Your task to perform on an android device: turn pop-ups on in chrome Image 0: 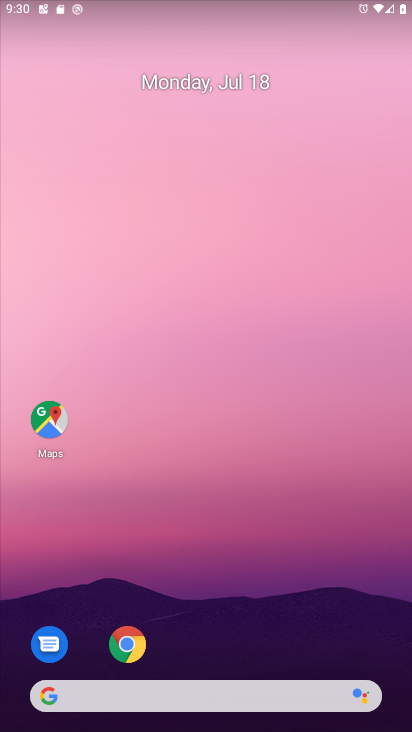
Step 0: click (133, 638)
Your task to perform on an android device: turn pop-ups on in chrome Image 1: 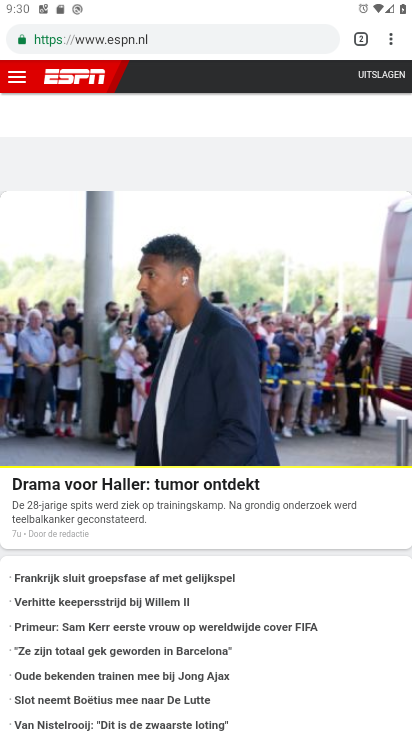
Step 1: click (393, 46)
Your task to perform on an android device: turn pop-ups on in chrome Image 2: 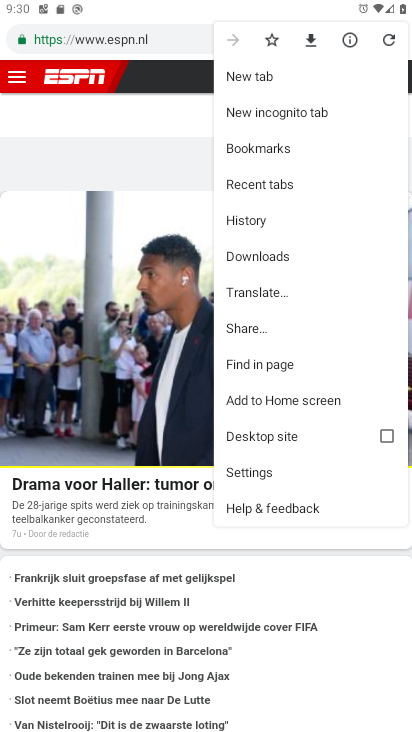
Step 2: click (250, 468)
Your task to perform on an android device: turn pop-ups on in chrome Image 3: 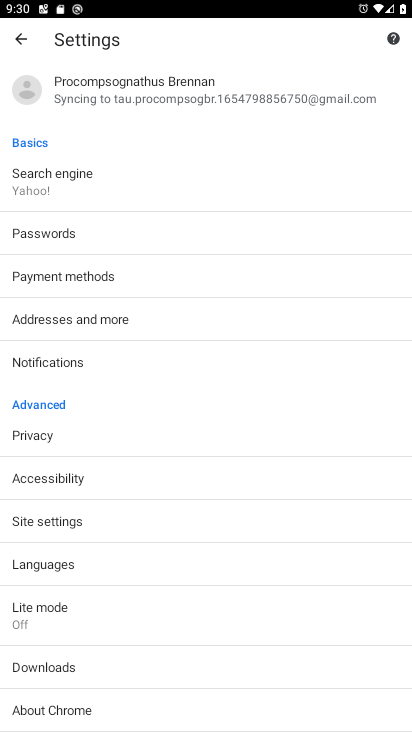
Step 3: click (209, 523)
Your task to perform on an android device: turn pop-ups on in chrome Image 4: 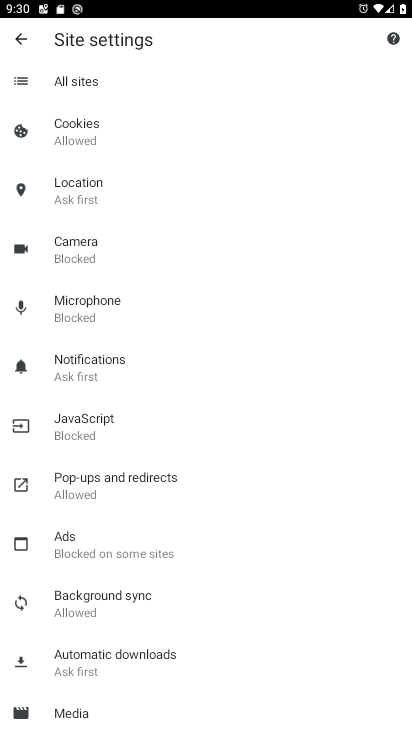
Step 4: click (160, 475)
Your task to perform on an android device: turn pop-ups on in chrome Image 5: 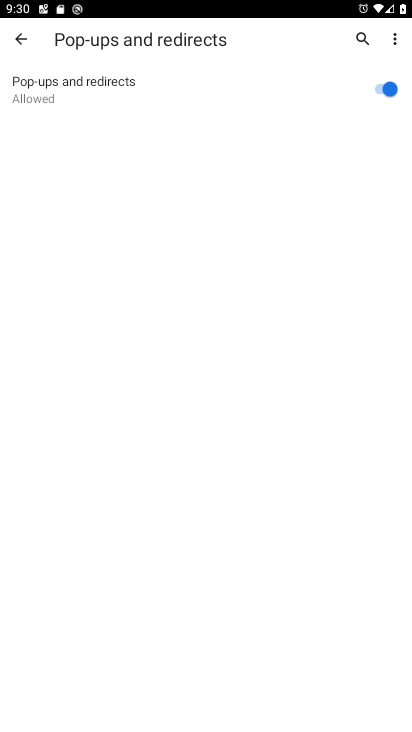
Step 5: task complete